Your task to perform on an android device: Go to location settings Image 0: 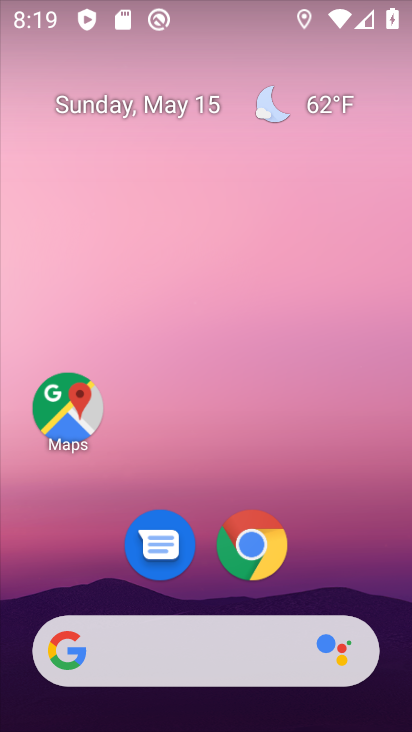
Step 0: drag from (324, 553) to (220, 117)
Your task to perform on an android device: Go to location settings Image 1: 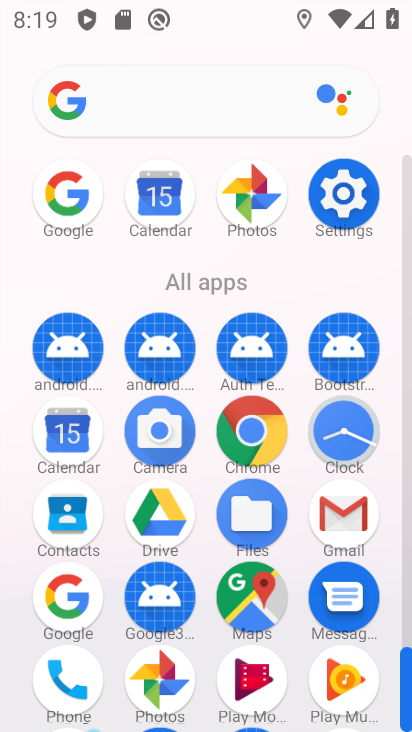
Step 1: click (339, 194)
Your task to perform on an android device: Go to location settings Image 2: 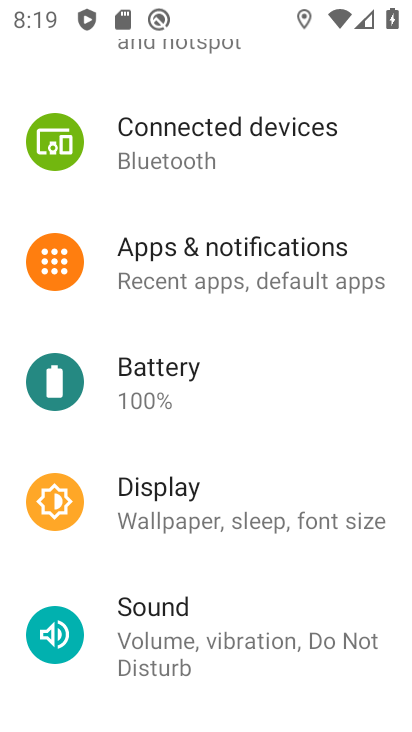
Step 2: drag from (236, 678) to (204, 108)
Your task to perform on an android device: Go to location settings Image 3: 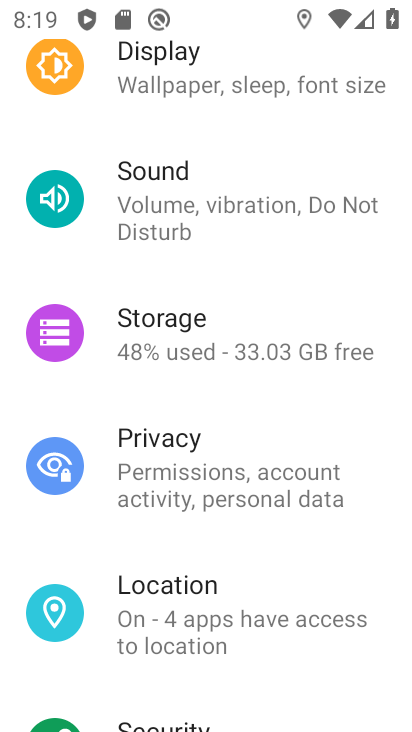
Step 3: drag from (208, 608) to (209, 249)
Your task to perform on an android device: Go to location settings Image 4: 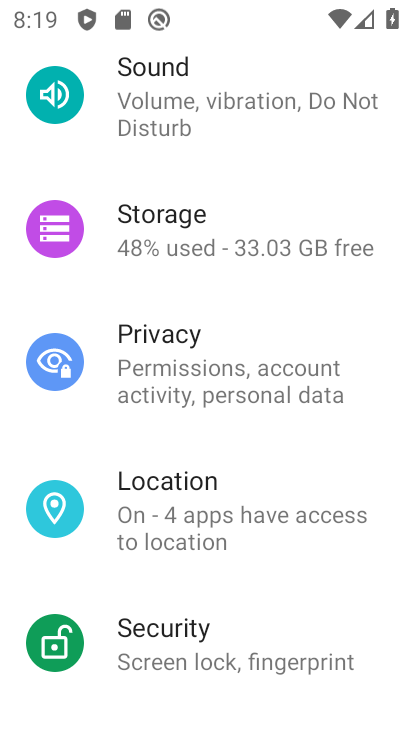
Step 4: click (181, 512)
Your task to perform on an android device: Go to location settings Image 5: 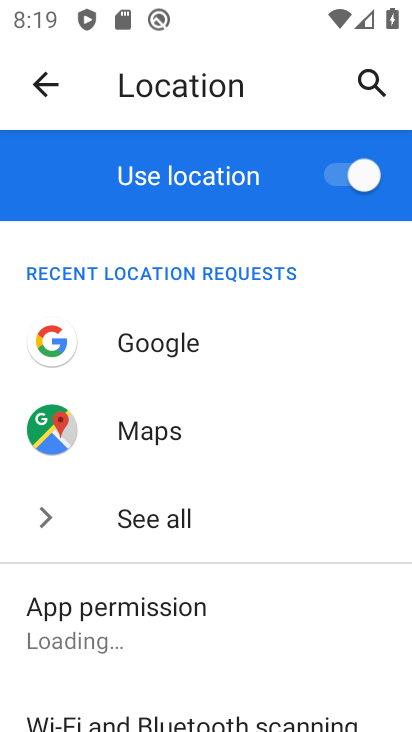
Step 5: task complete